Your task to perform on an android device: Go to Yahoo.com Image 0: 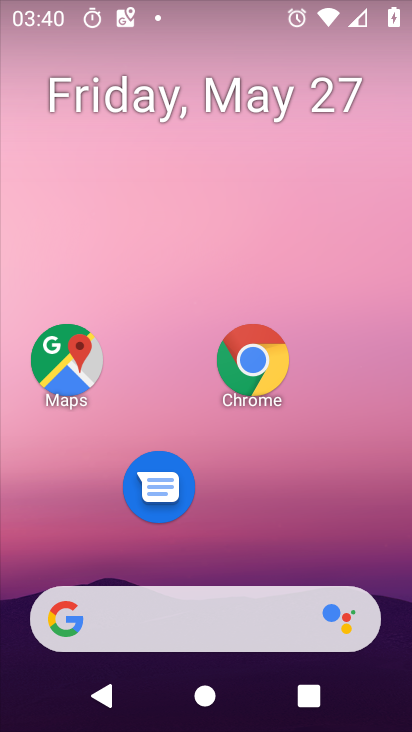
Step 0: drag from (250, 530) to (284, 3)
Your task to perform on an android device: Go to Yahoo.com Image 1: 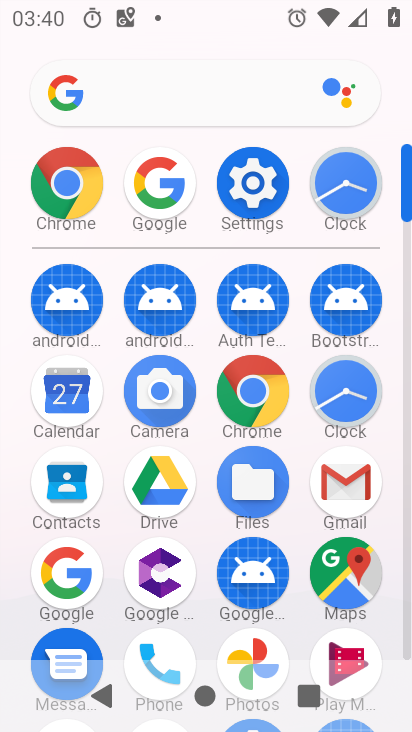
Step 1: click (78, 183)
Your task to perform on an android device: Go to Yahoo.com Image 2: 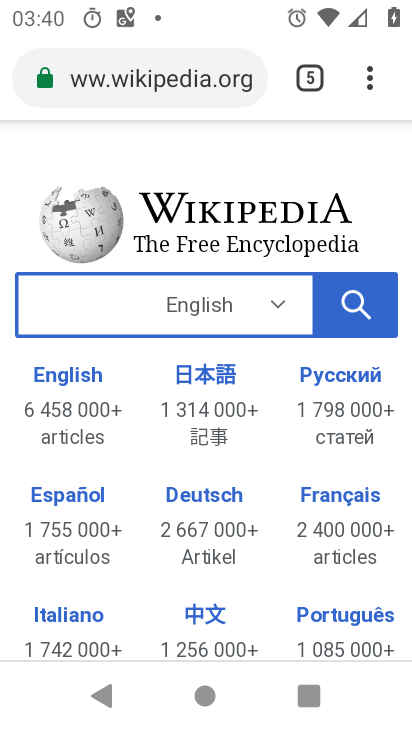
Step 2: press back button
Your task to perform on an android device: Go to Yahoo.com Image 3: 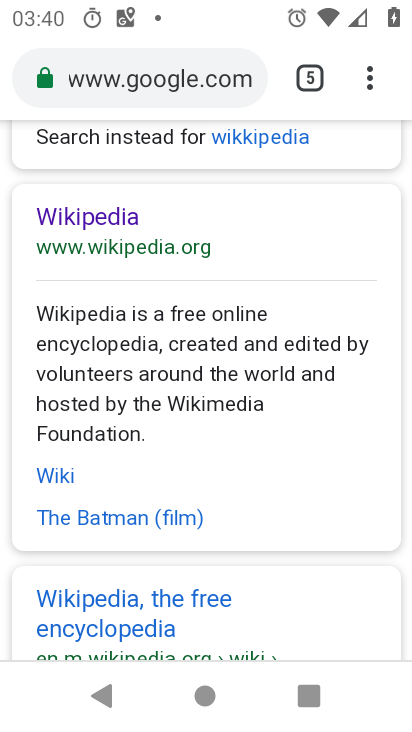
Step 3: press back button
Your task to perform on an android device: Go to Yahoo.com Image 4: 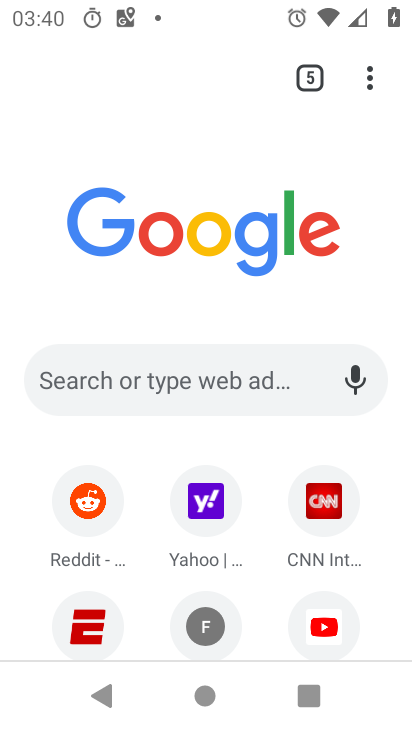
Step 4: click (204, 509)
Your task to perform on an android device: Go to Yahoo.com Image 5: 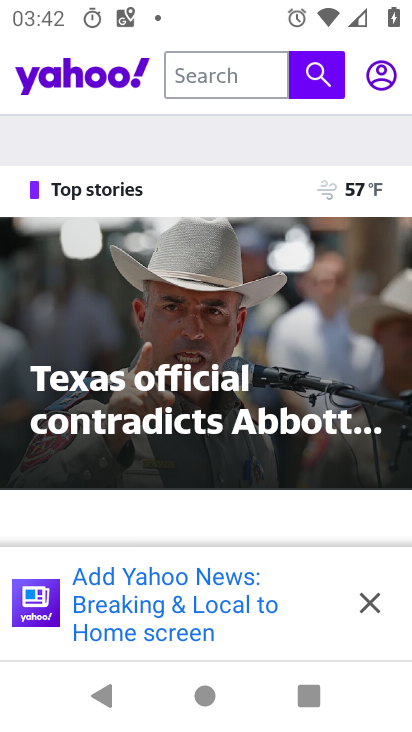
Step 5: task complete